Your task to perform on an android device: Is it going to rain today? Image 0: 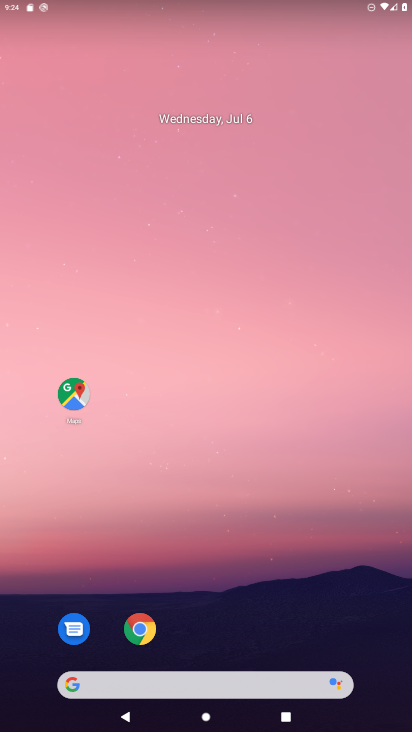
Step 0: drag from (237, 680) to (227, 4)
Your task to perform on an android device: Is it going to rain today? Image 1: 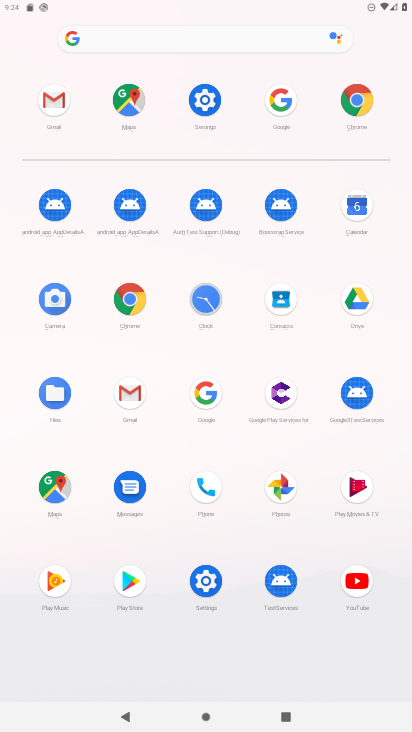
Step 1: click (136, 288)
Your task to perform on an android device: Is it going to rain today? Image 2: 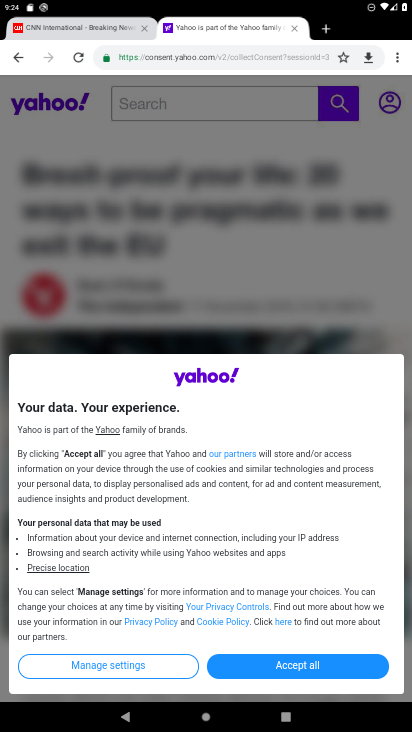
Step 2: click (228, 60)
Your task to perform on an android device: Is it going to rain today? Image 3: 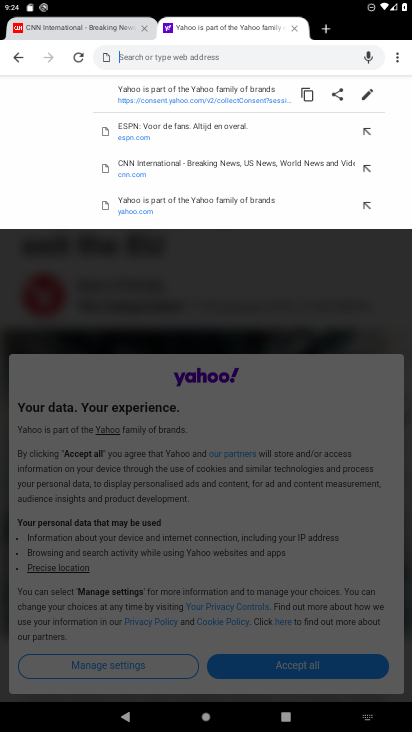
Step 3: type "going to rain today"
Your task to perform on an android device: Is it going to rain today? Image 4: 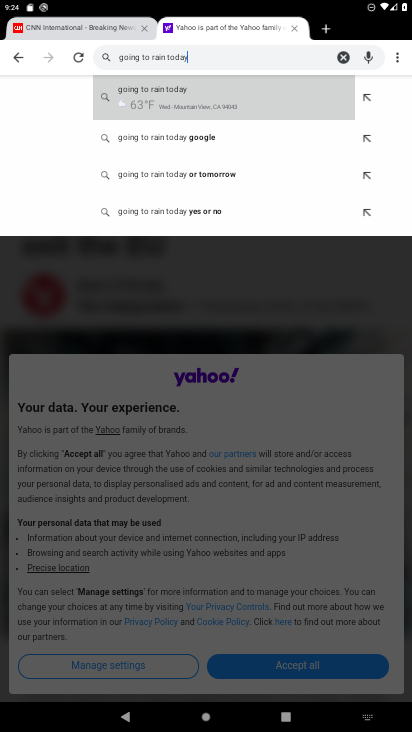
Step 4: click (196, 103)
Your task to perform on an android device: Is it going to rain today? Image 5: 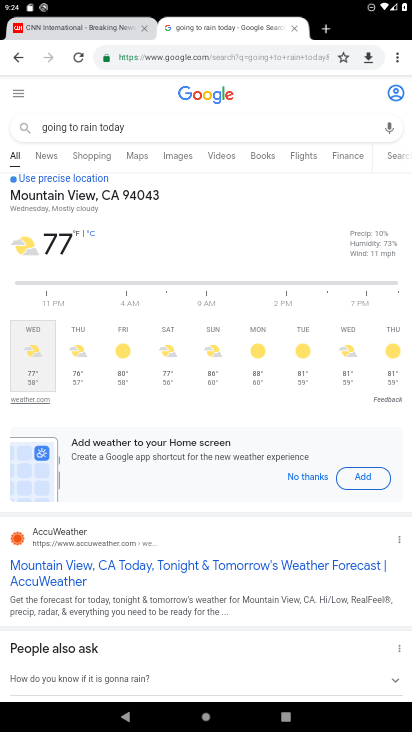
Step 5: task complete